Your task to perform on an android device: turn on bluetooth scan Image 0: 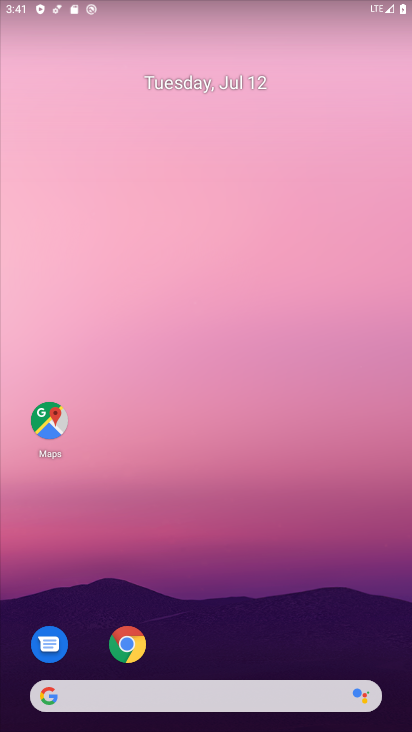
Step 0: drag from (309, 492) to (266, 3)
Your task to perform on an android device: turn on bluetooth scan Image 1: 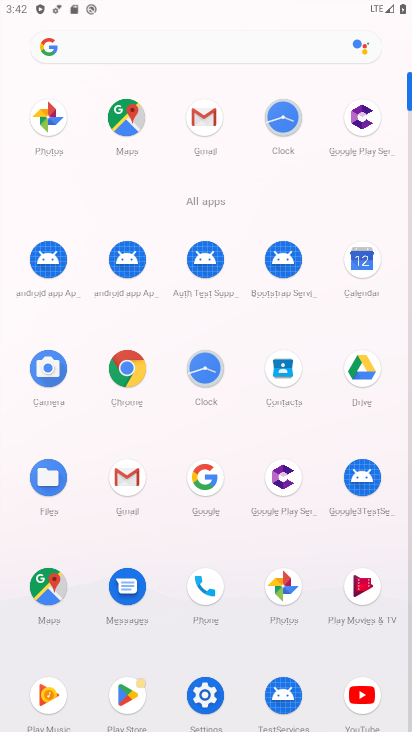
Step 1: drag from (219, 612) to (180, 125)
Your task to perform on an android device: turn on bluetooth scan Image 2: 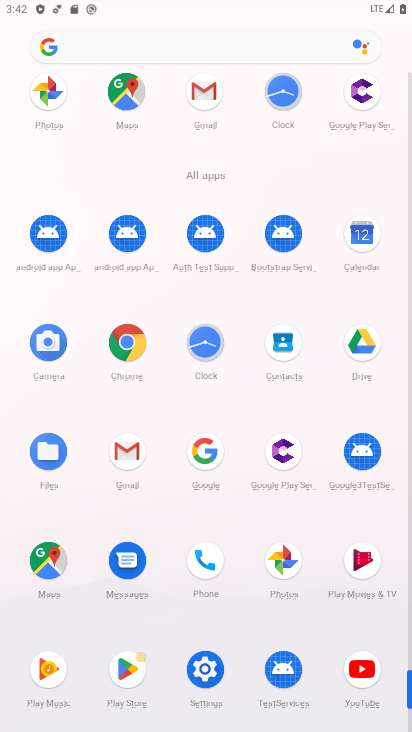
Step 2: click (207, 645)
Your task to perform on an android device: turn on bluetooth scan Image 3: 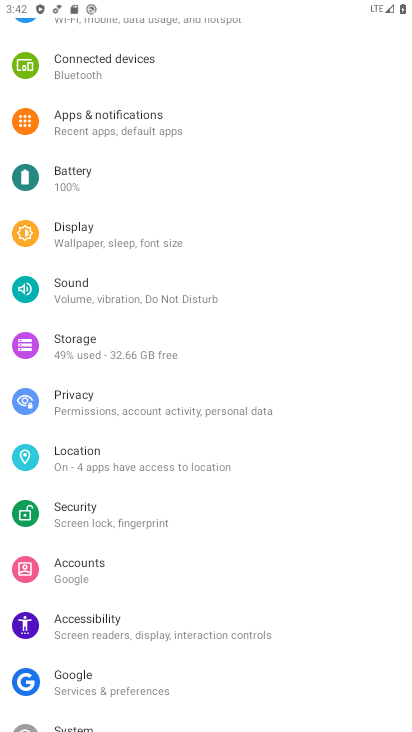
Step 3: click (80, 454)
Your task to perform on an android device: turn on bluetooth scan Image 4: 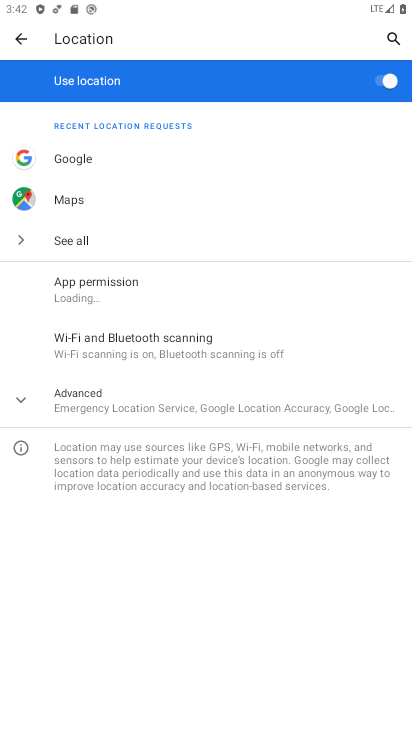
Step 4: click (100, 340)
Your task to perform on an android device: turn on bluetooth scan Image 5: 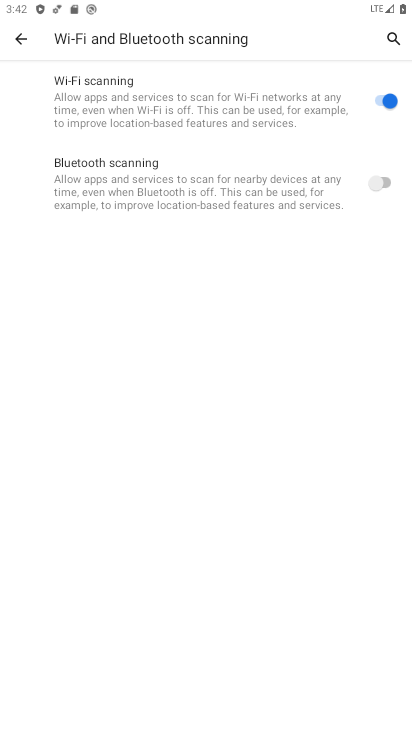
Step 5: task complete